Your task to perform on an android device: turn off wifi Image 0: 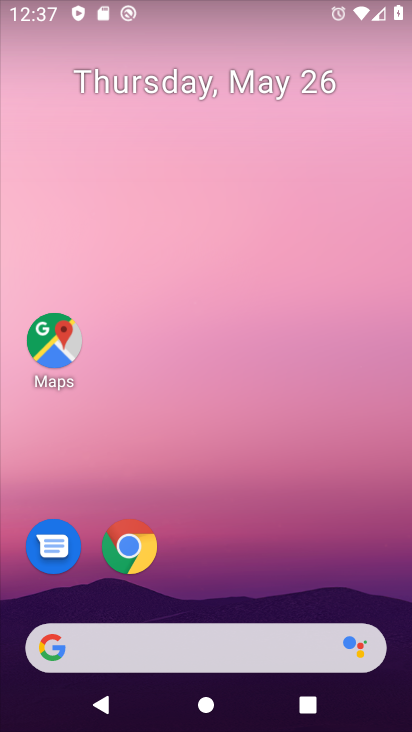
Step 0: drag from (235, 5) to (256, 538)
Your task to perform on an android device: turn off wifi Image 1: 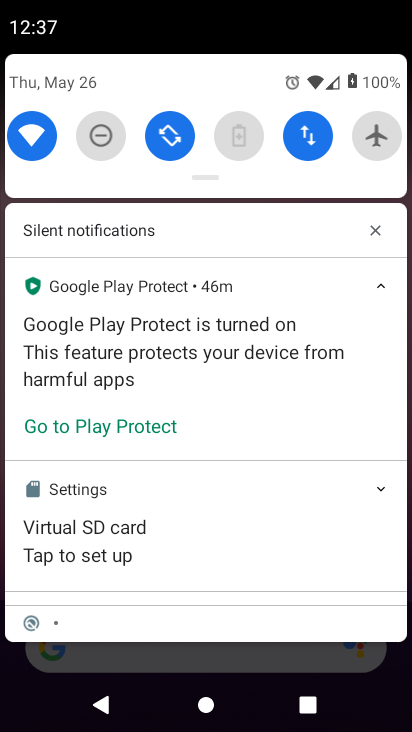
Step 1: click (24, 139)
Your task to perform on an android device: turn off wifi Image 2: 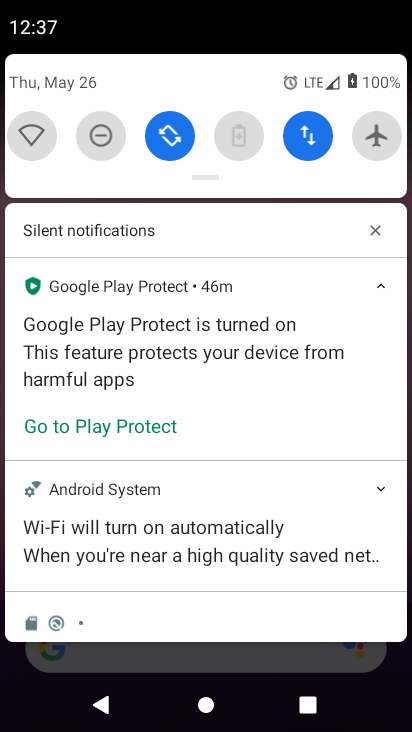
Step 2: task complete